Your task to perform on an android device: Clear the shopping cart on bestbuy. Add "acer predator" to the cart on bestbuy Image 0: 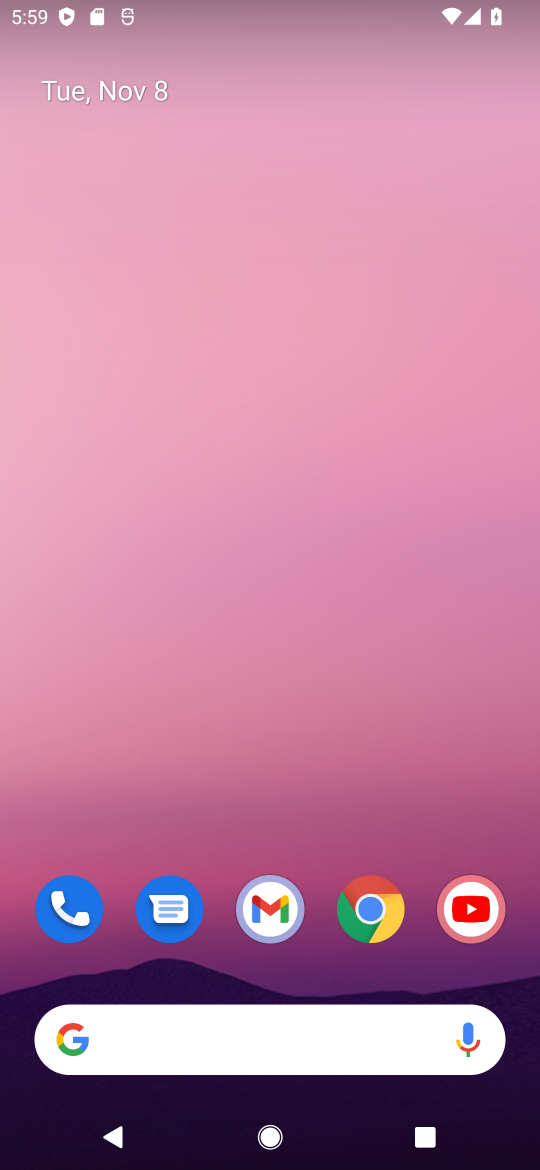
Step 0: click (375, 893)
Your task to perform on an android device: Clear the shopping cart on bestbuy. Add "acer predator" to the cart on bestbuy Image 1: 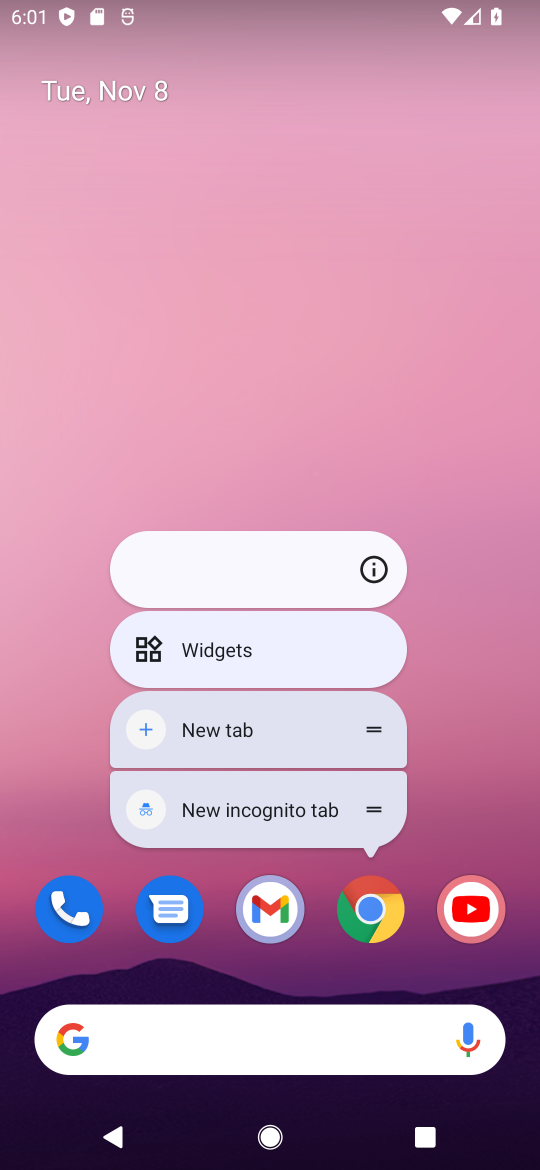
Step 1: click (361, 899)
Your task to perform on an android device: Clear the shopping cart on bestbuy. Add "acer predator" to the cart on bestbuy Image 2: 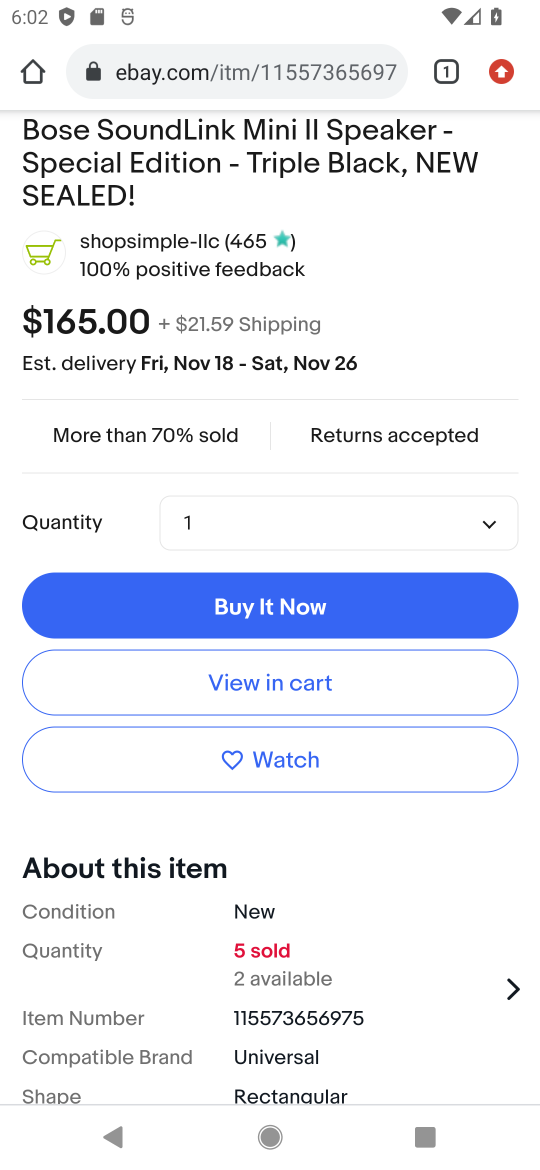
Step 2: click (327, 60)
Your task to perform on an android device: Clear the shopping cart on bestbuy. Add "acer predator" to the cart on bestbuy Image 3: 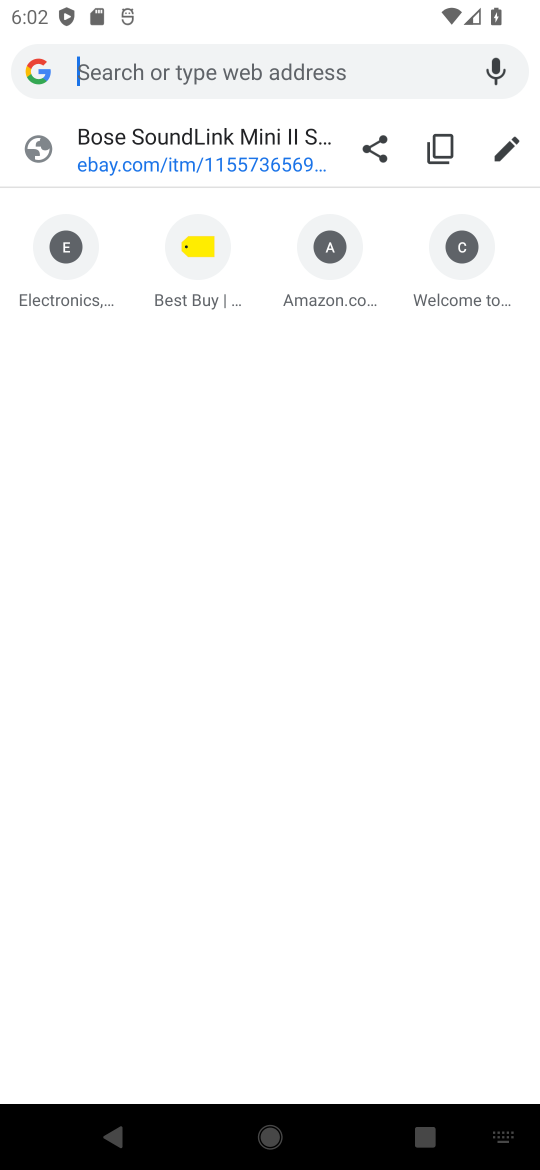
Step 3: click (192, 302)
Your task to perform on an android device: Clear the shopping cart on bestbuy. Add "acer predator" to the cart on bestbuy Image 4: 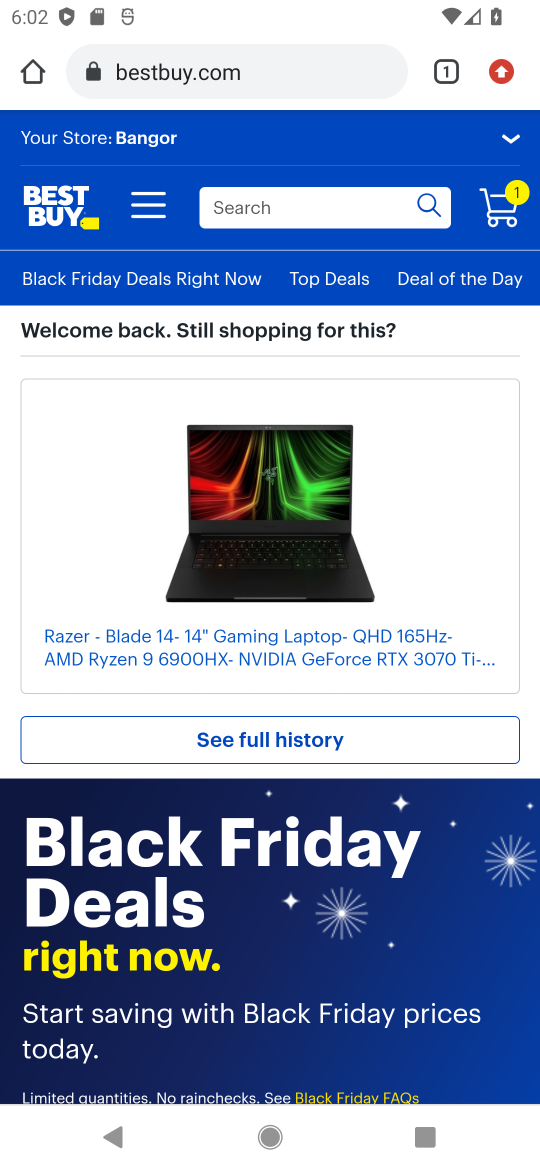
Step 4: click (341, 208)
Your task to perform on an android device: Clear the shopping cart on bestbuy. Add "acer predator" to the cart on bestbuy Image 5: 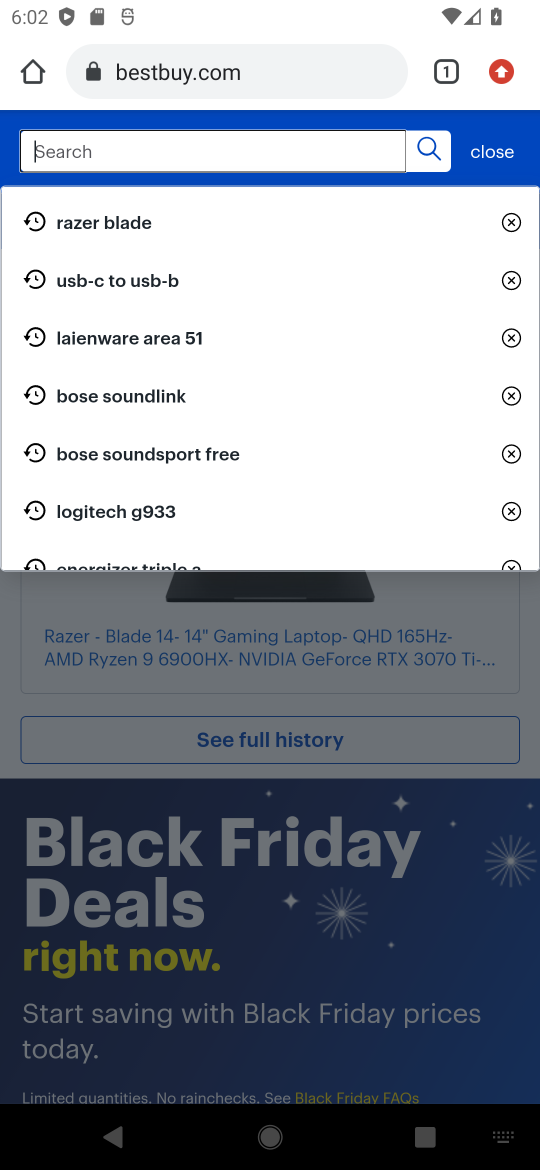
Step 5: type "acer predator"
Your task to perform on an android device: Clear the shopping cart on bestbuy. Add "acer predator" to the cart on bestbuy Image 6: 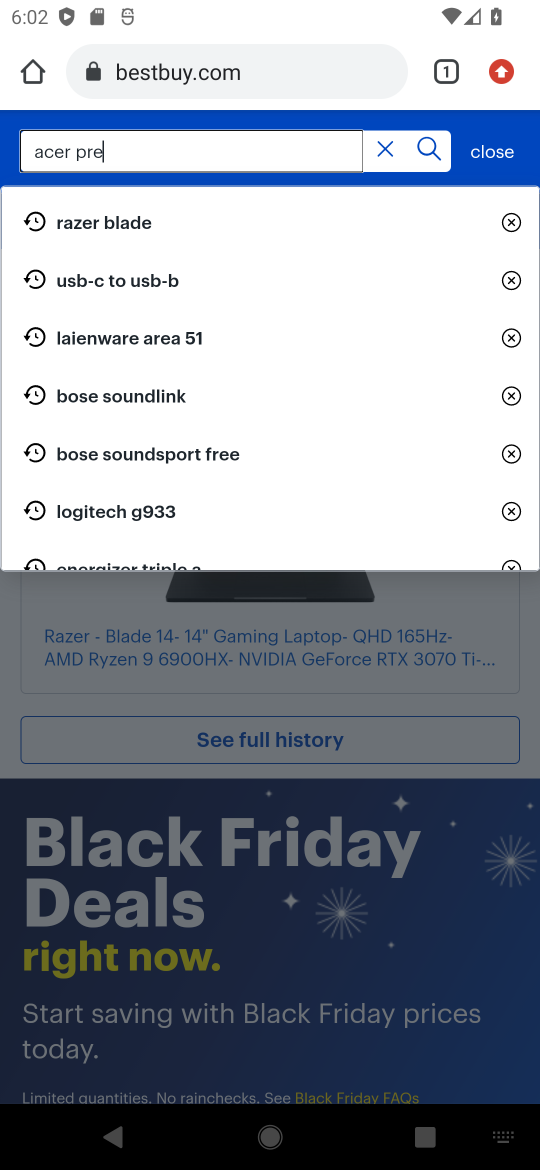
Step 6: press enter
Your task to perform on an android device: Clear the shopping cart on bestbuy. Add "acer predator" to the cart on bestbuy Image 7: 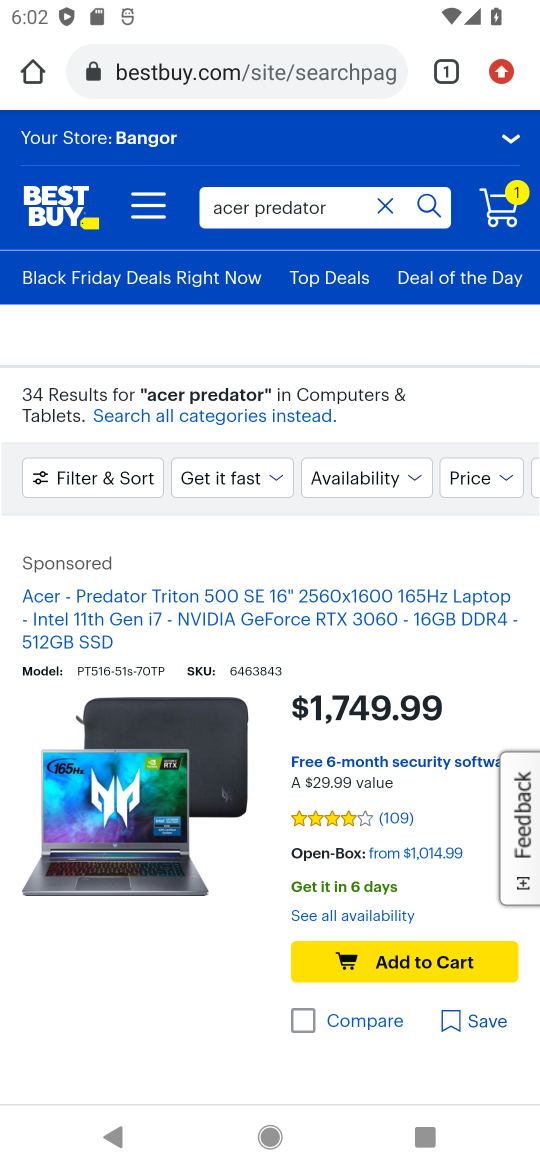
Step 7: click (394, 961)
Your task to perform on an android device: Clear the shopping cart on bestbuy. Add "acer predator" to the cart on bestbuy Image 8: 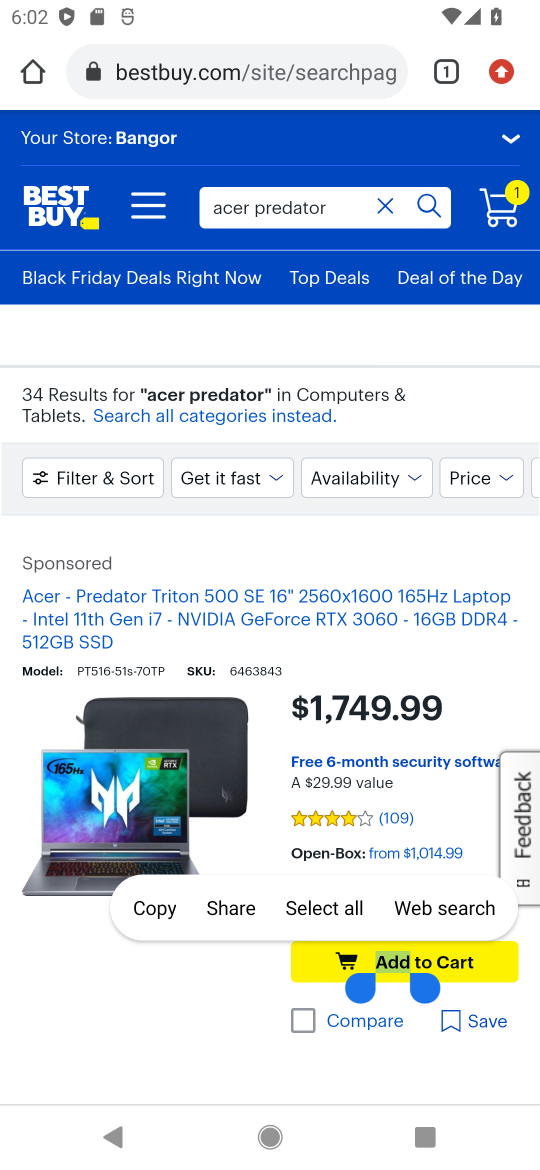
Step 8: click (456, 956)
Your task to perform on an android device: Clear the shopping cart on bestbuy. Add "acer predator" to the cart on bestbuy Image 9: 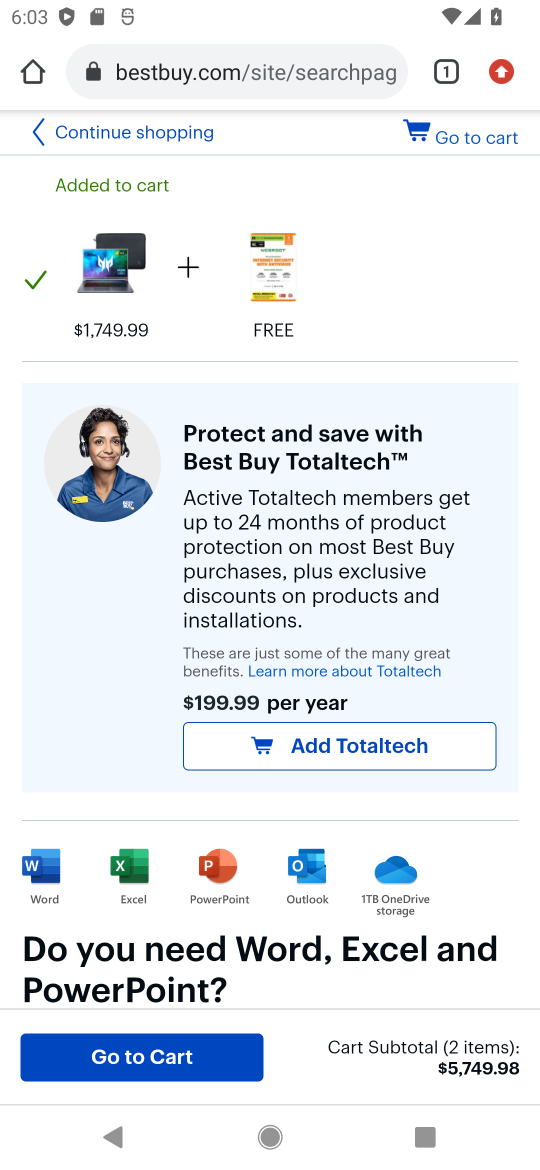
Step 9: click (493, 133)
Your task to perform on an android device: Clear the shopping cart on bestbuy. Add "acer predator" to the cart on bestbuy Image 10: 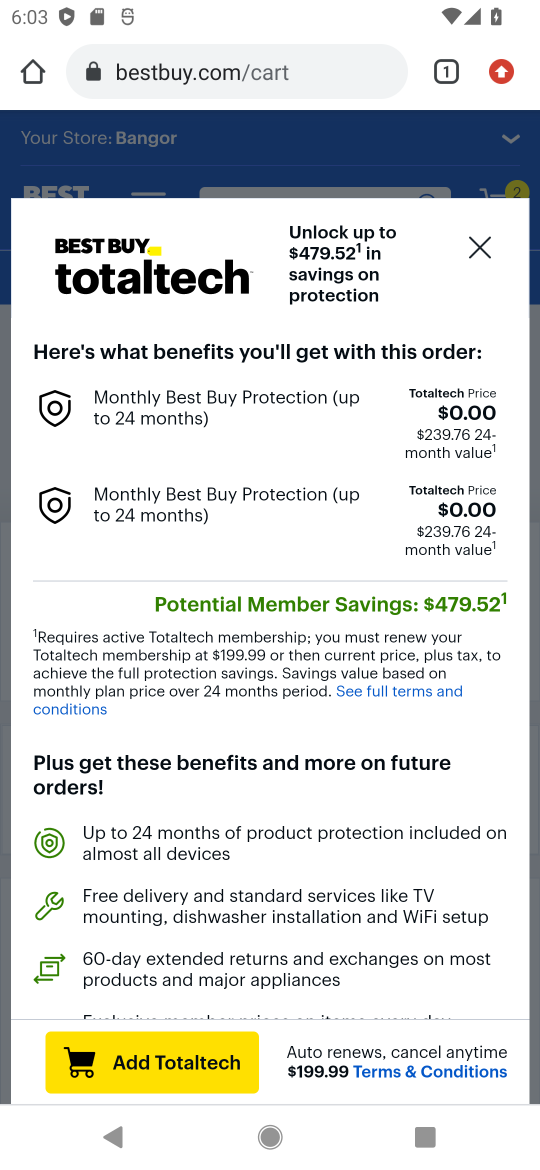
Step 10: click (485, 236)
Your task to perform on an android device: Clear the shopping cart on bestbuy. Add "acer predator" to the cart on bestbuy Image 11: 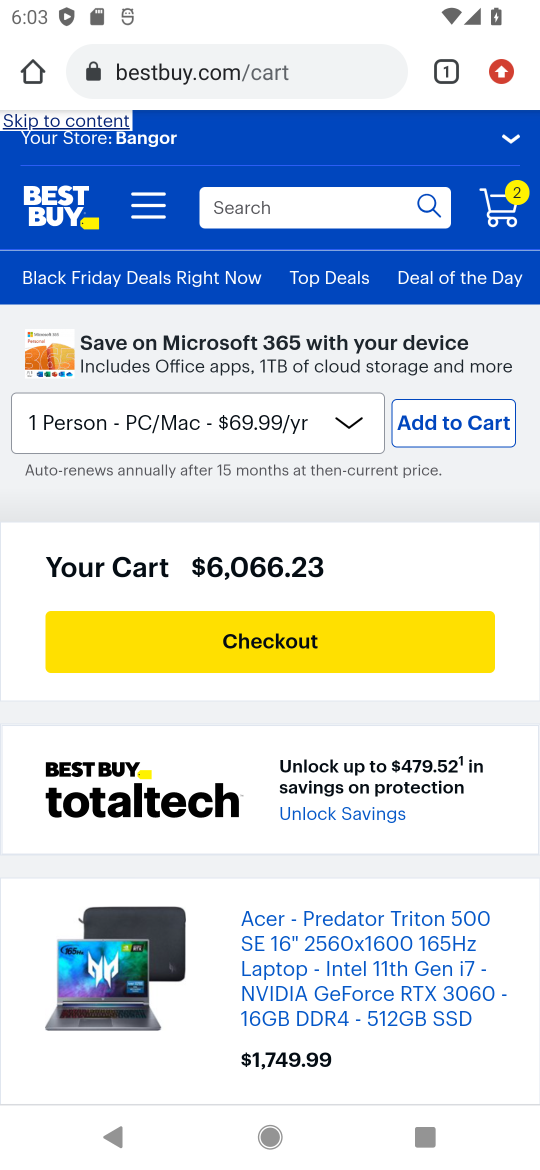
Step 11: drag from (172, 967) to (343, 135)
Your task to perform on an android device: Clear the shopping cart on bestbuy. Add "acer predator" to the cart on bestbuy Image 12: 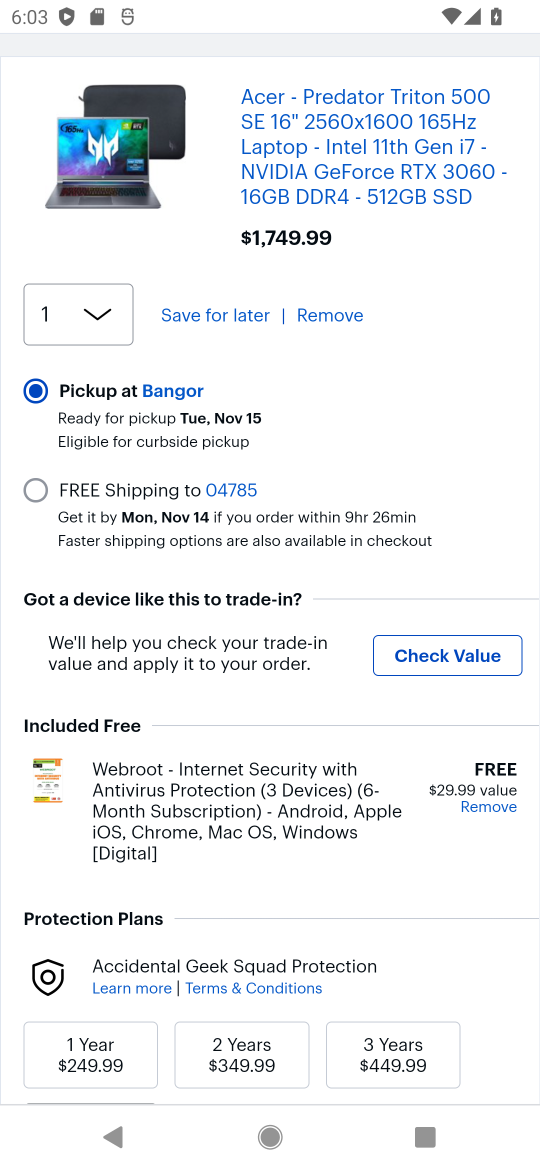
Step 12: drag from (335, 483) to (314, 32)
Your task to perform on an android device: Clear the shopping cart on bestbuy. Add "acer predator" to the cart on bestbuy Image 13: 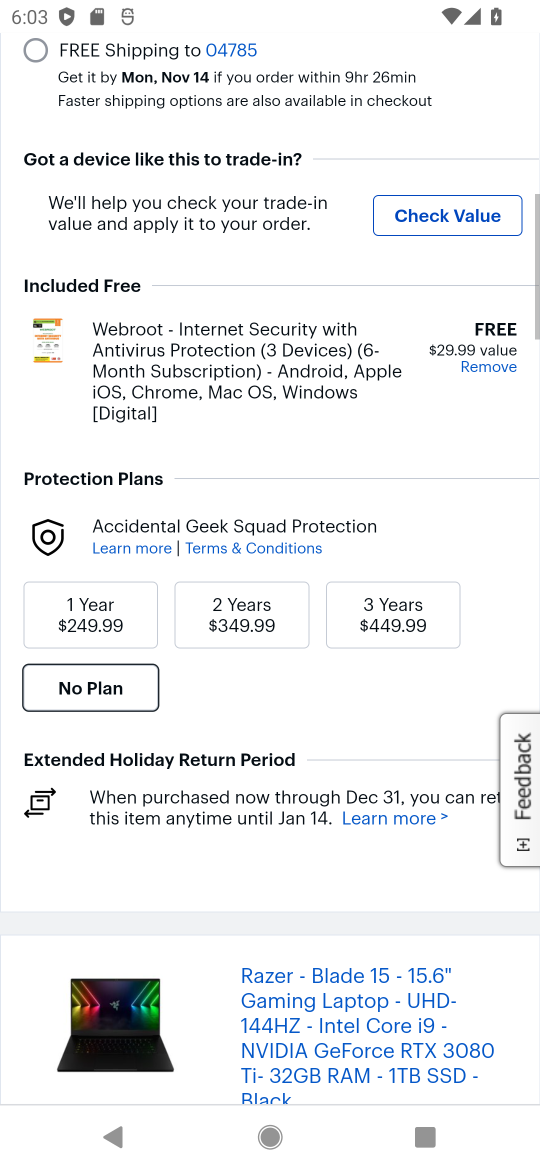
Step 13: drag from (295, 823) to (327, 215)
Your task to perform on an android device: Clear the shopping cart on bestbuy. Add "acer predator" to the cart on bestbuy Image 14: 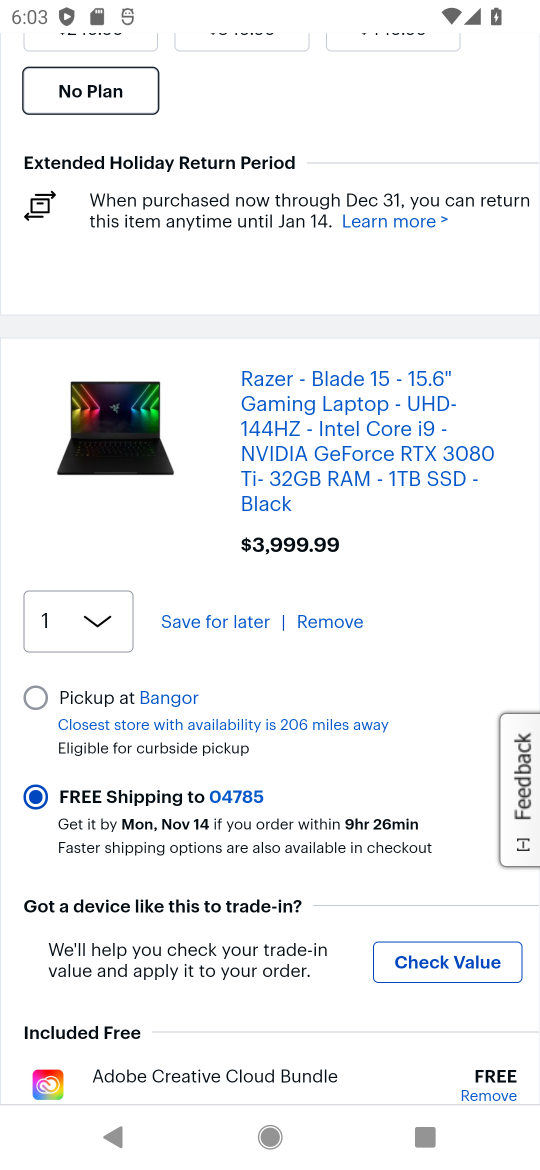
Step 14: click (336, 621)
Your task to perform on an android device: Clear the shopping cart on bestbuy. Add "acer predator" to the cart on bestbuy Image 15: 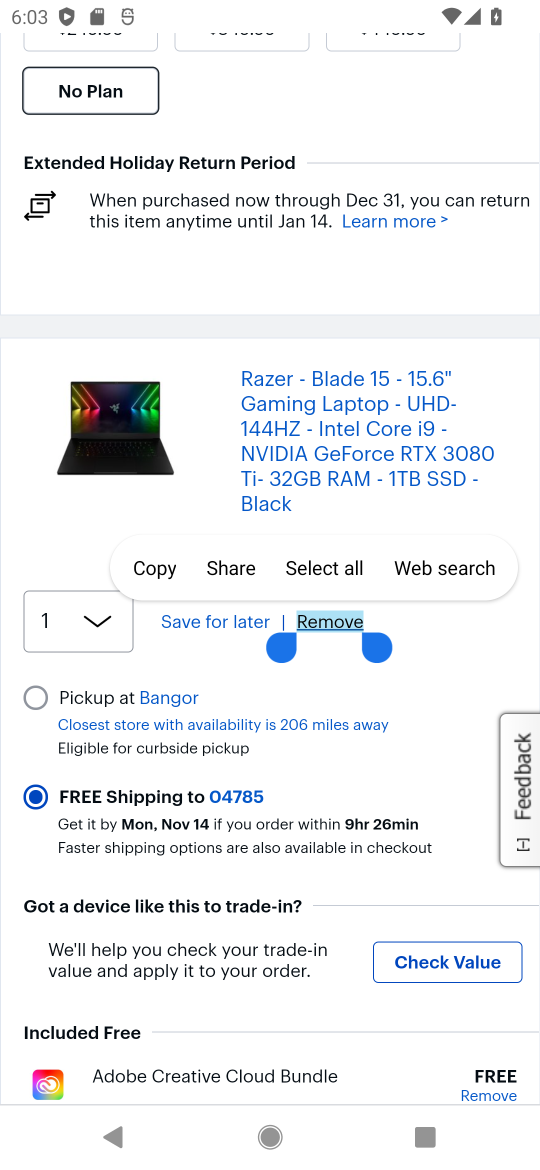
Step 15: click (336, 619)
Your task to perform on an android device: Clear the shopping cart on bestbuy. Add "acer predator" to the cart on bestbuy Image 16: 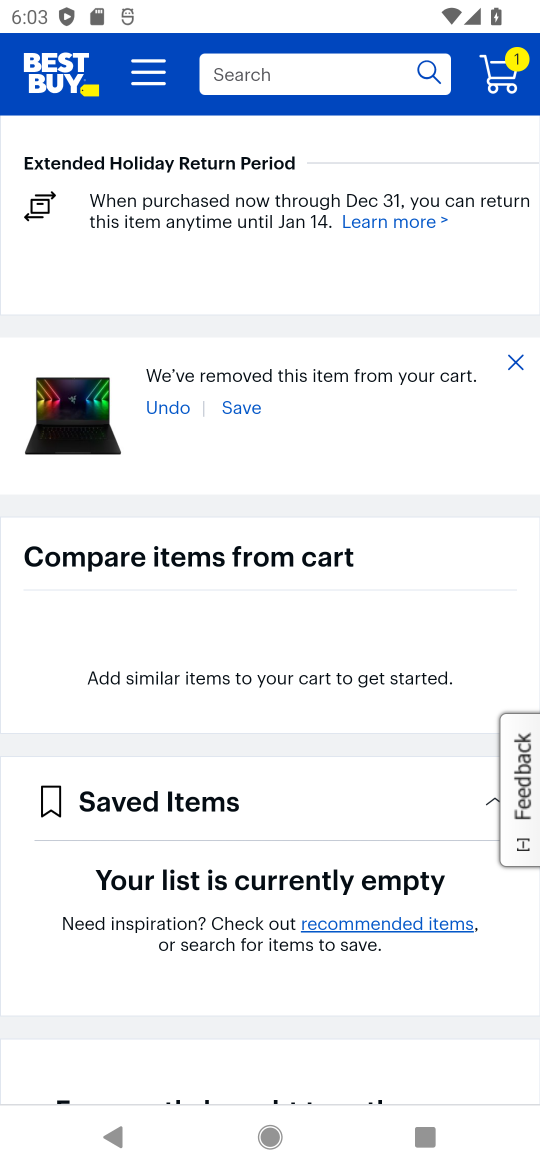
Step 16: task complete